Your task to perform on an android device: change timer sound Image 0: 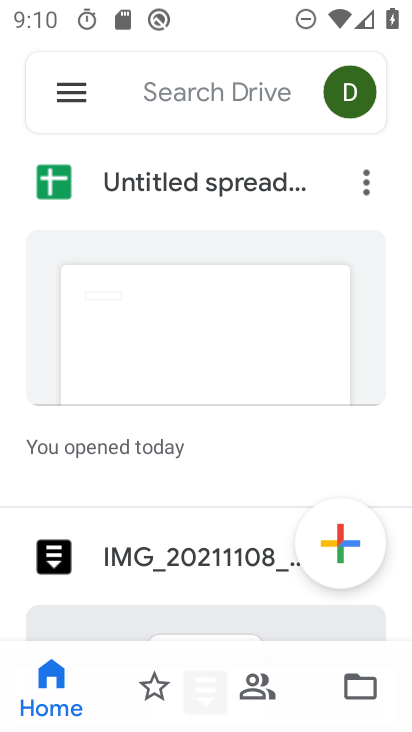
Step 0: press home button
Your task to perform on an android device: change timer sound Image 1: 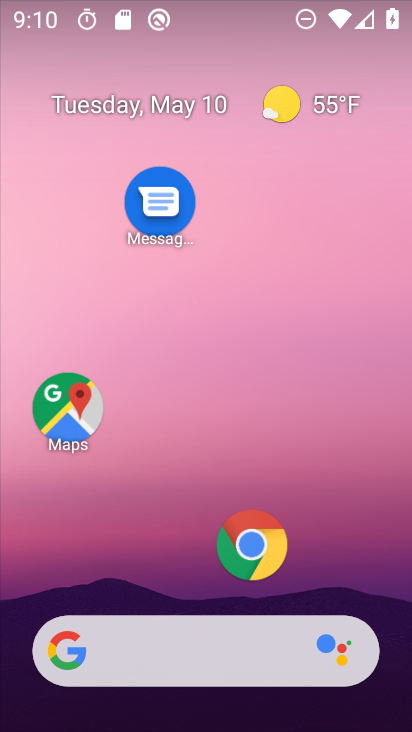
Step 1: drag from (173, 581) to (209, 165)
Your task to perform on an android device: change timer sound Image 2: 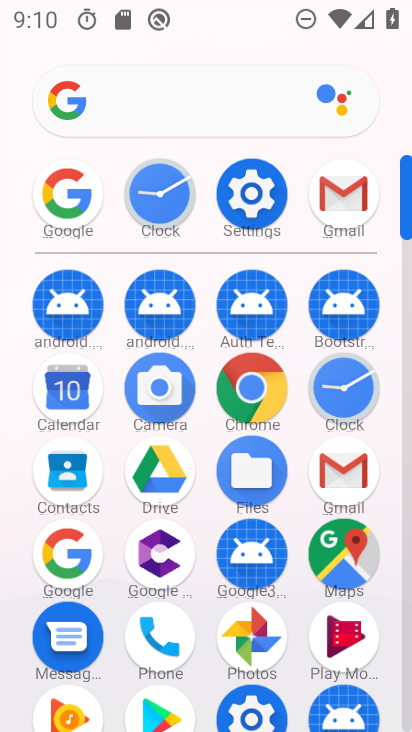
Step 2: click (169, 182)
Your task to perform on an android device: change timer sound Image 3: 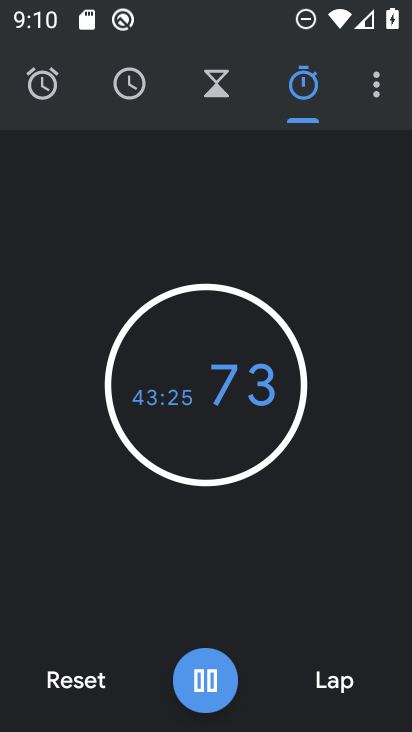
Step 3: click (372, 89)
Your task to perform on an android device: change timer sound Image 4: 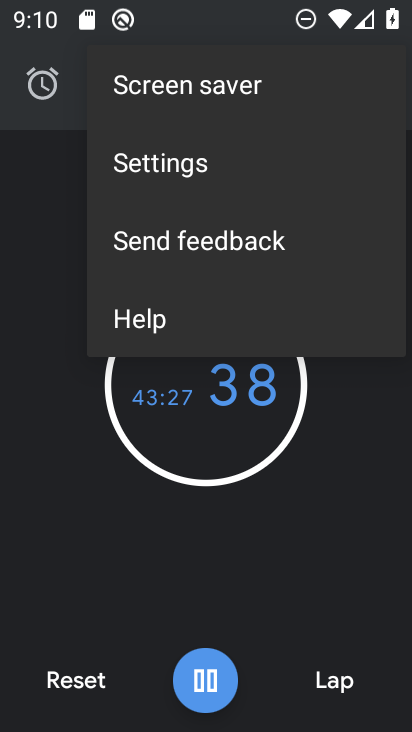
Step 4: click (252, 164)
Your task to perform on an android device: change timer sound Image 5: 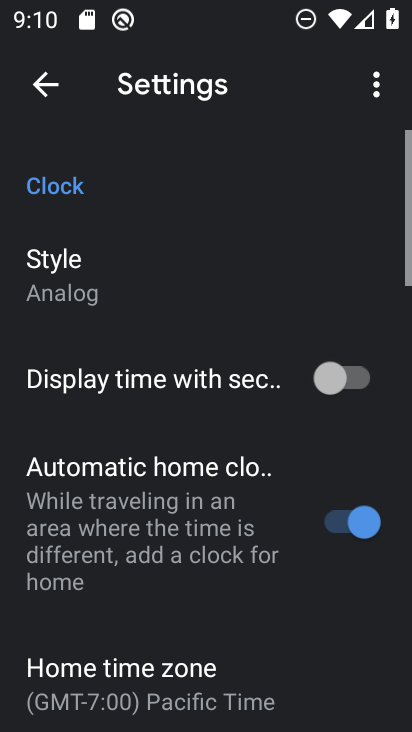
Step 5: drag from (211, 708) to (245, 245)
Your task to perform on an android device: change timer sound Image 6: 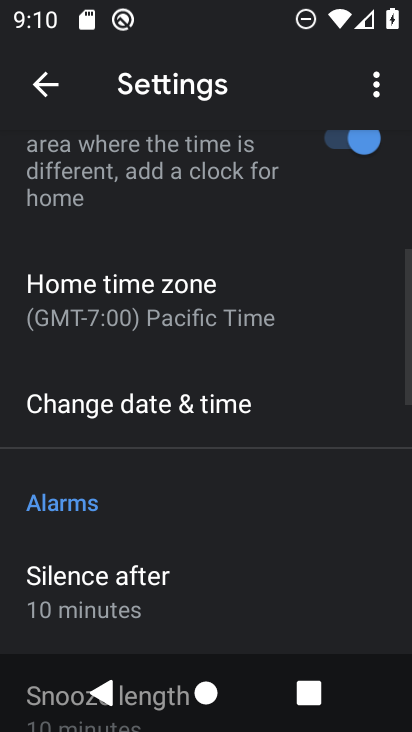
Step 6: drag from (202, 543) to (233, 312)
Your task to perform on an android device: change timer sound Image 7: 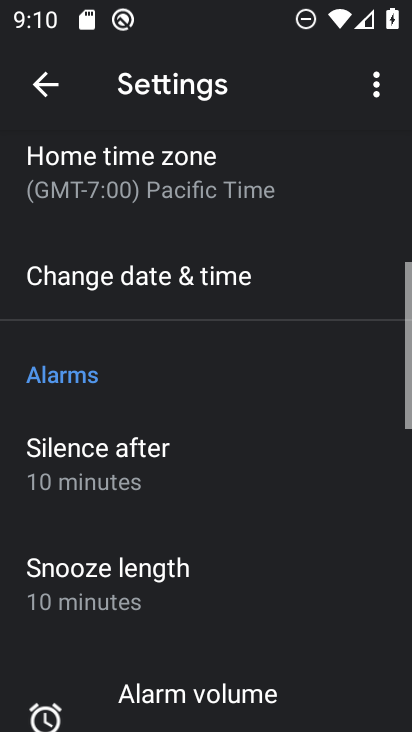
Step 7: drag from (217, 508) to (239, 284)
Your task to perform on an android device: change timer sound Image 8: 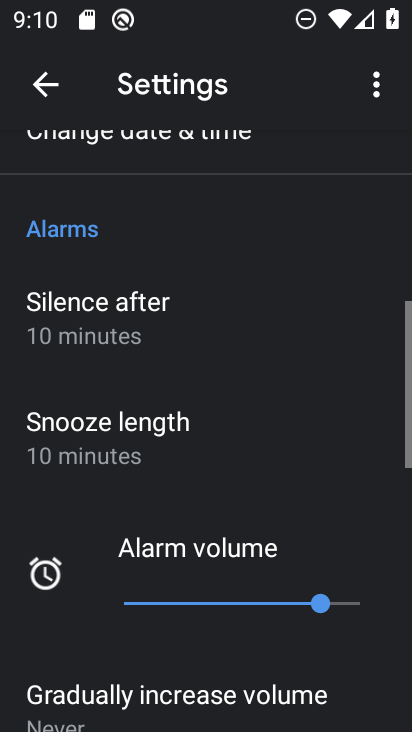
Step 8: drag from (212, 551) to (211, 304)
Your task to perform on an android device: change timer sound Image 9: 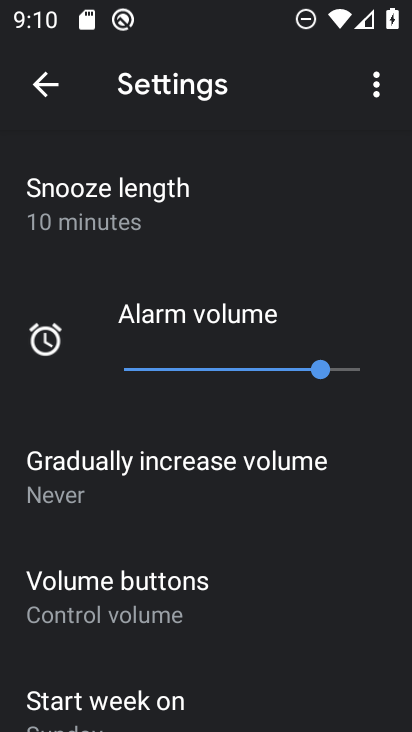
Step 9: drag from (231, 622) to (264, 239)
Your task to perform on an android device: change timer sound Image 10: 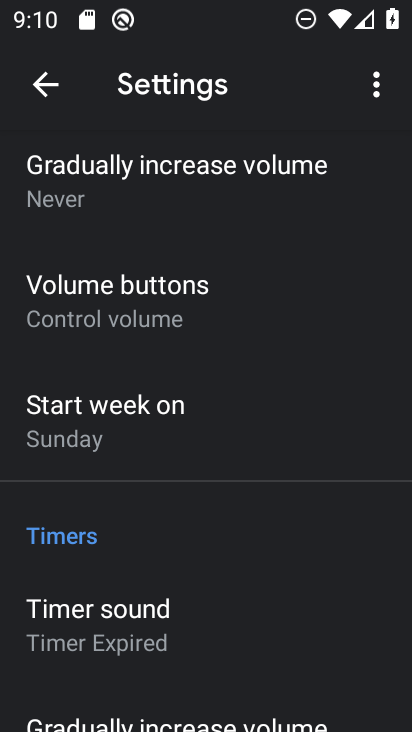
Step 10: click (187, 608)
Your task to perform on an android device: change timer sound Image 11: 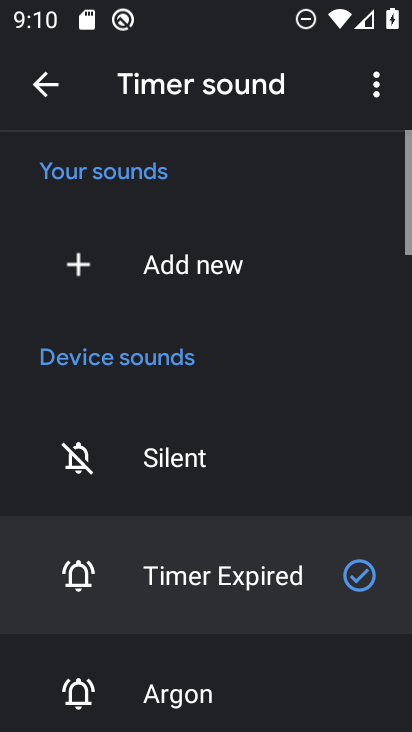
Step 11: click (211, 702)
Your task to perform on an android device: change timer sound Image 12: 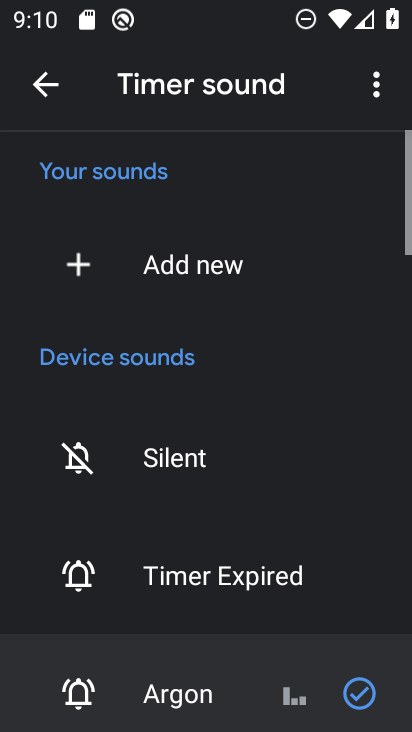
Step 12: task complete